Your task to perform on an android device: change alarm snooze length Image 0: 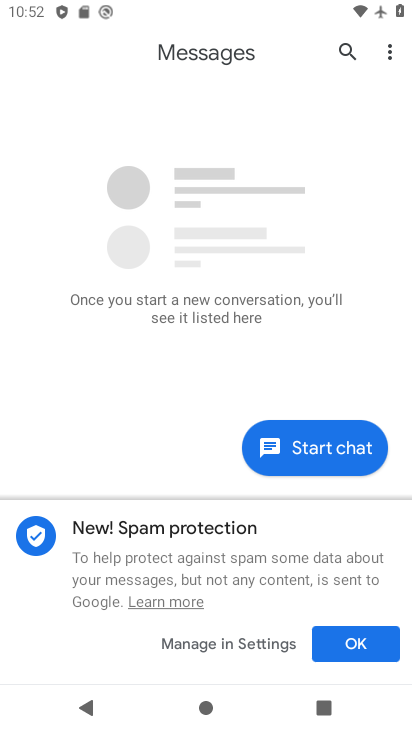
Step 0: press home button
Your task to perform on an android device: change alarm snooze length Image 1: 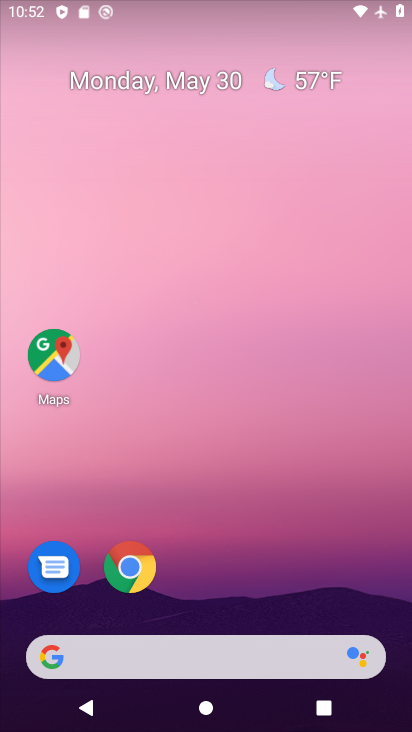
Step 1: drag from (193, 610) to (200, 188)
Your task to perform on an android device: change alarm snooze length Image 2: 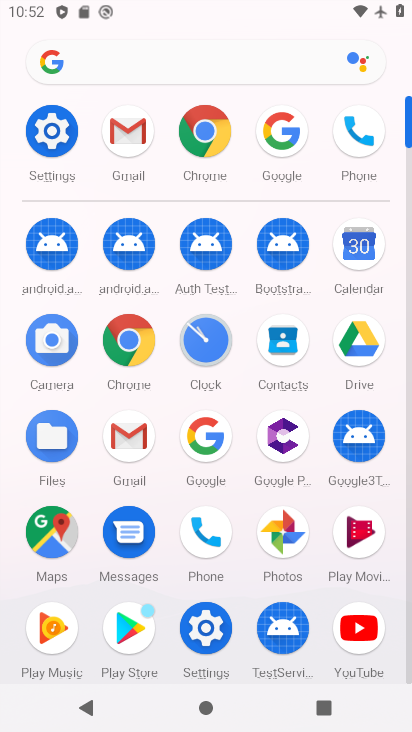
Step 2: click (198, 346)
Your task to perform on an android device: change alarm snooze length Image 3: 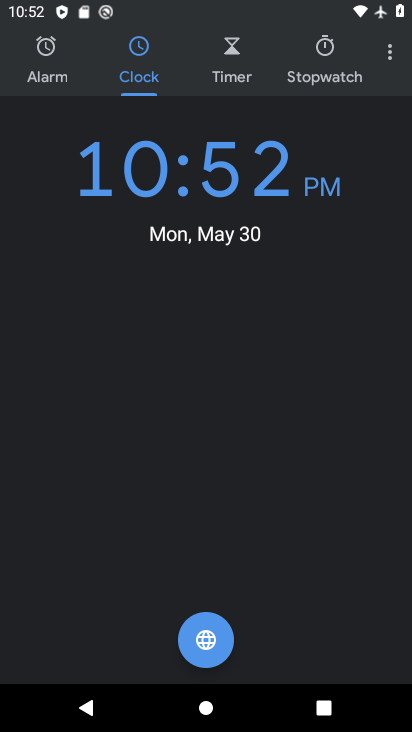
Step 3: click (389, 55)
Your task to perform on an android device: change alarm snooze length Image 4: 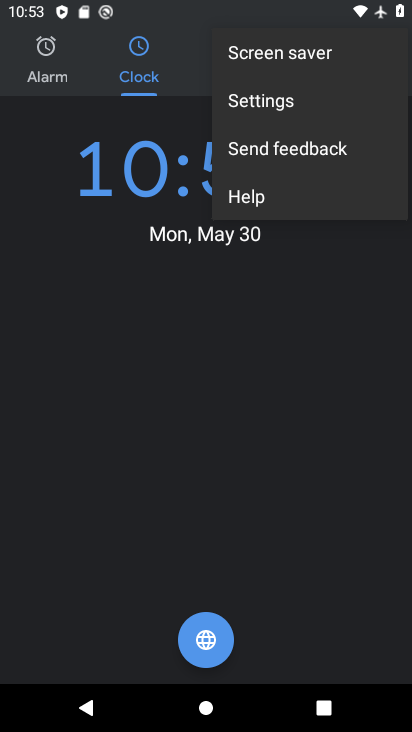
Step 4: click (292, 101)
Your task to perform on an android device: change alarm snooze length Image 5: 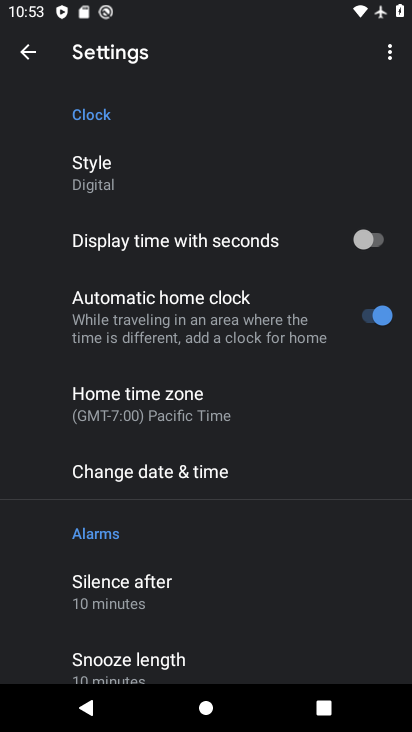
Step 5: drag from (203, 580) to (213, 284)
Your task to perform on an android device: change alarm snooze length Image 6: 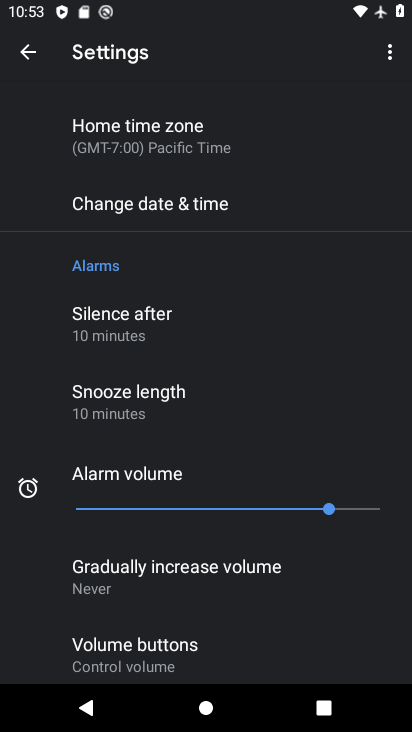
Step 6: click (178, 419)
Your task to perform on an android device: change alarm snooze length Image 7: 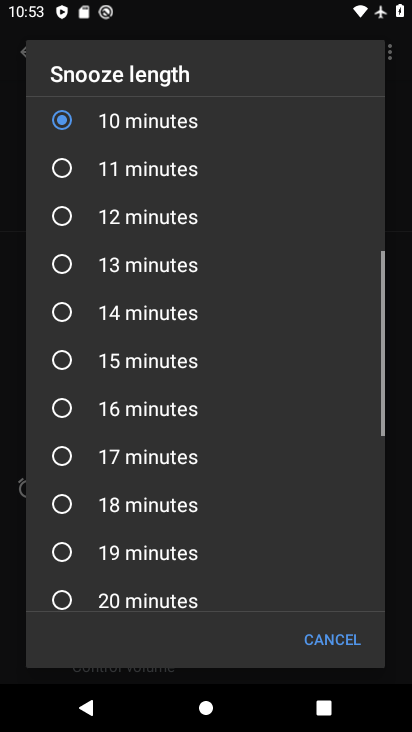
Step 7: click (148, 423)
Your task to perform on an android device: change alarm snooze length Image 8: 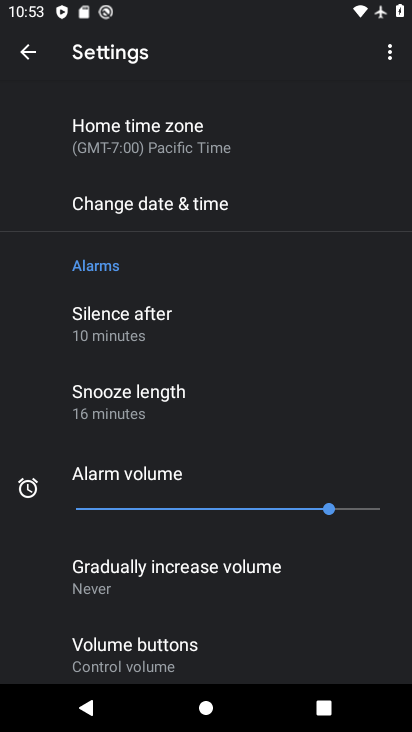
Step 8: task complete